Your task to perform on an android device: Is it going to rain today? Image 0: 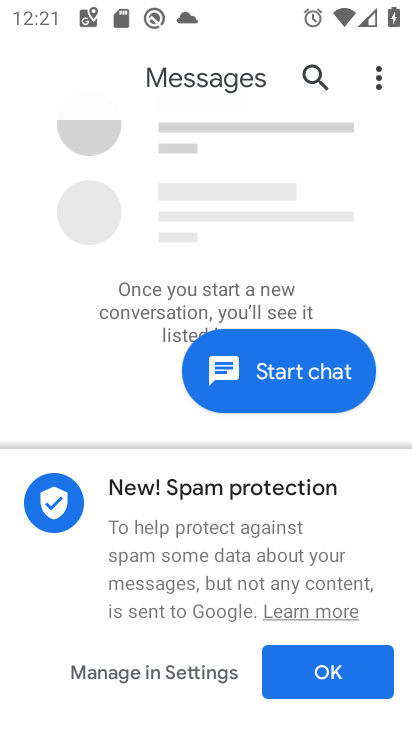
Step 0: click (388, 608)
Your task to perform on an android device: Is it going to rain today? Image 1: 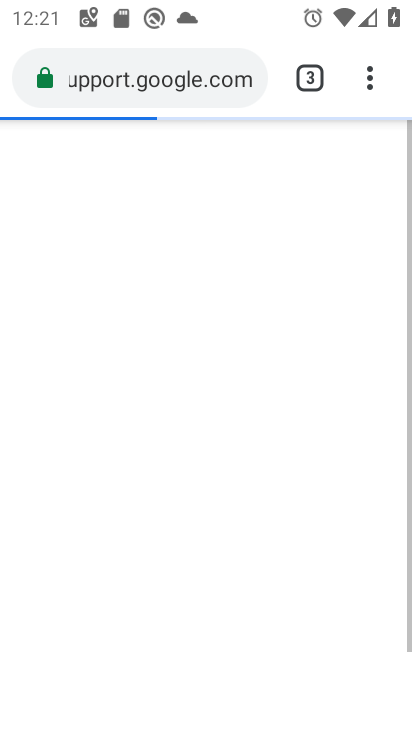
Step 1: press home button
Your task to perform on an android device: Is it going to rain today? Image 2: 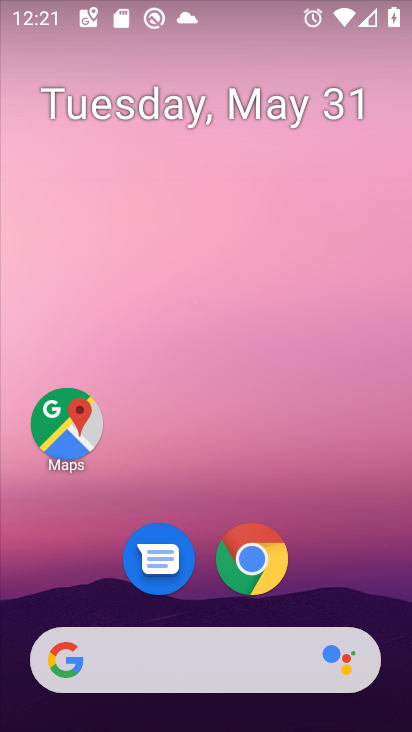
Step 2: click (80, 416)
Your task to perform on an android device: Is it going to rain today? Image 3: 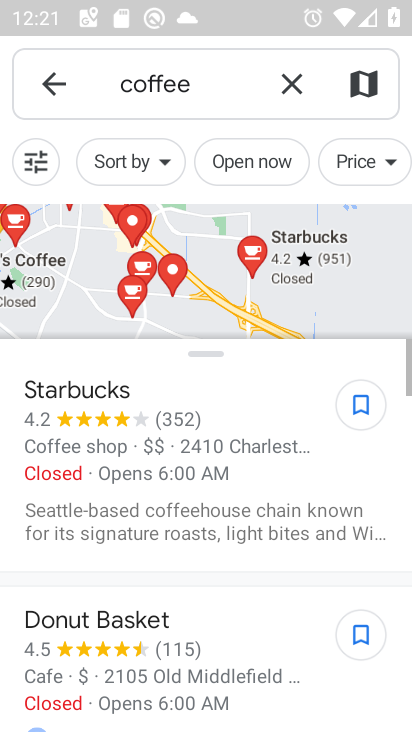
Step 3: click (300, 98)
Your task to perform on an android device: Is it going to rain today? Image 4: 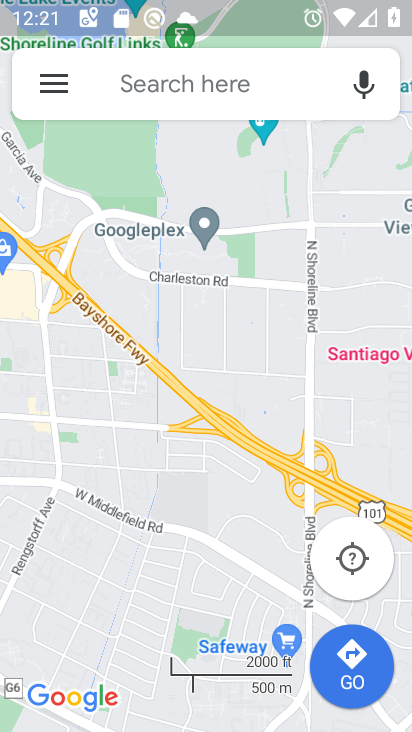
Step 4: press home button
Your task to perform on an android device: Is it going to rain today? Image 5: 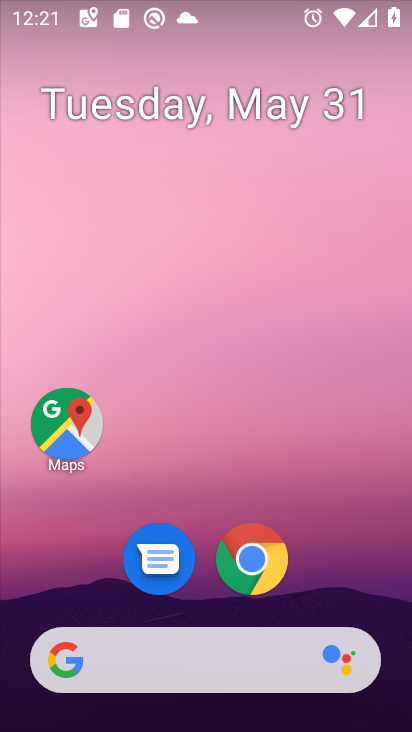
Step 5: click (265, 669)
Your task to perform on an android device: Is it going to rain today? Image 6: 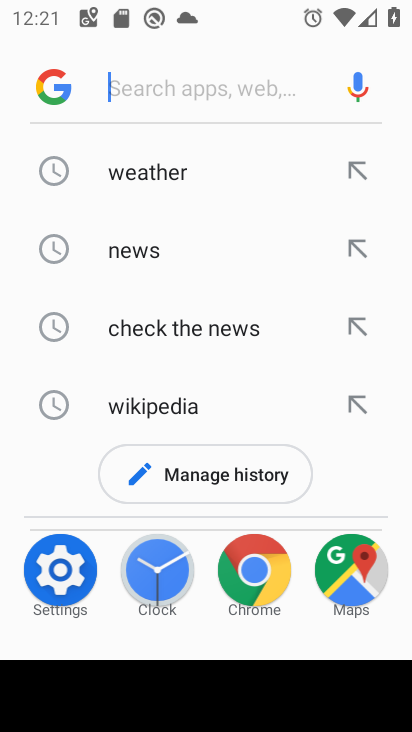
Step 6: click (198, 93)
Your task to perform on an android device: Is it going to rain today? Image 7: 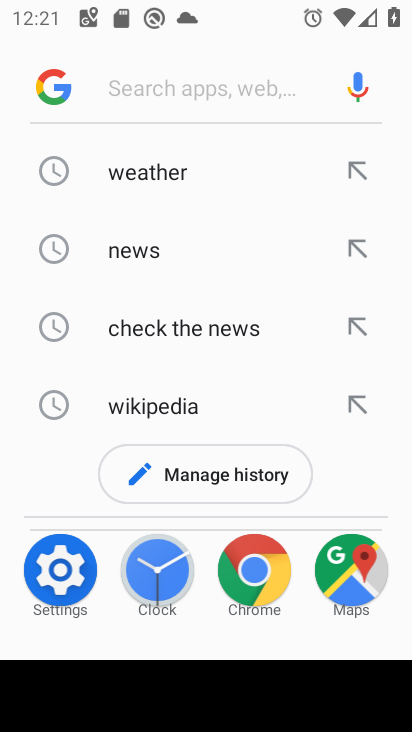
Step 7: type "Is it going to rain today?"
Your task to perform on an android device: Is it going to rain today? Image 8: 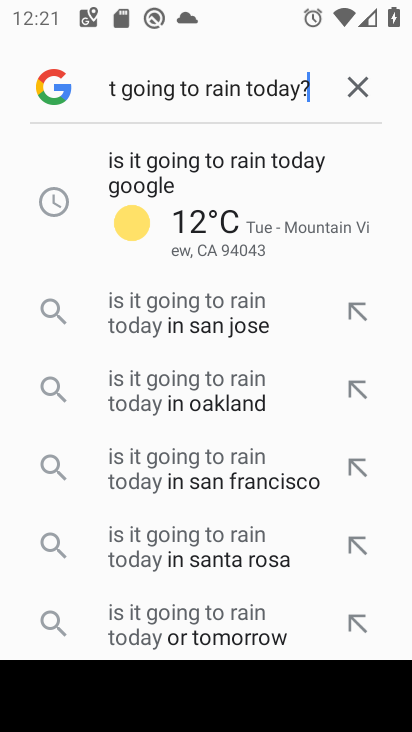
Step 8: click (226, 162)
Your task to perform on an android device: Is it going to rain today? Image 9: 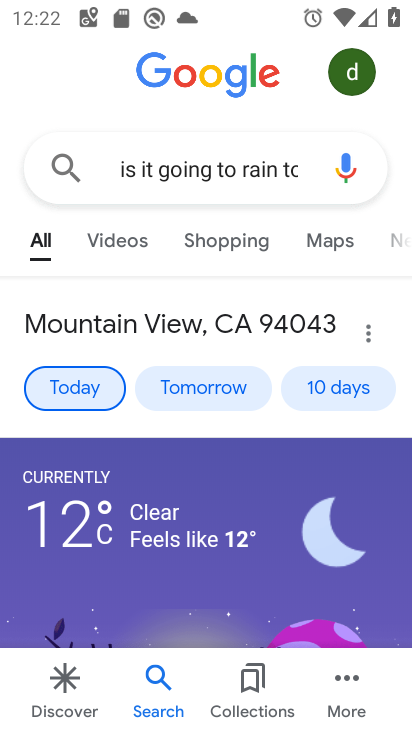
Step 9: task complete